Your task to perform on an android device: Go to internet settings Image 0: 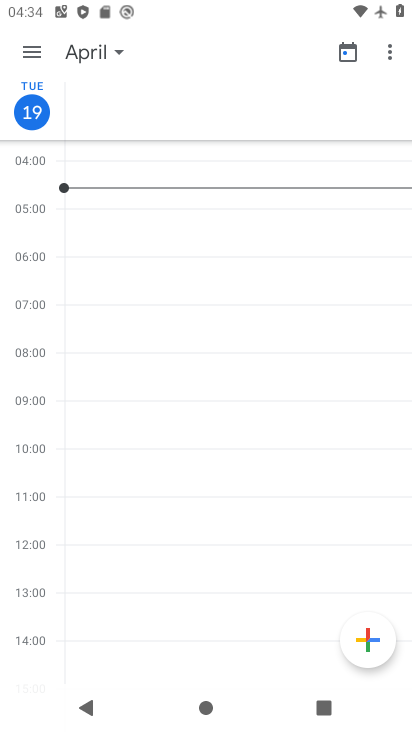
Step 0: press home button
Your task to perform on an android device: Go to internet settings Image 1: 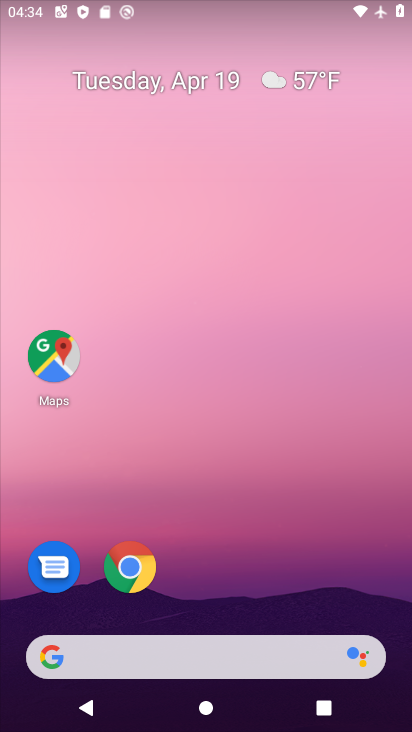
Step 1: drag from (351, 565) to (338, 173)
Your task to perform on an android device: Go to internet settings Image 2: 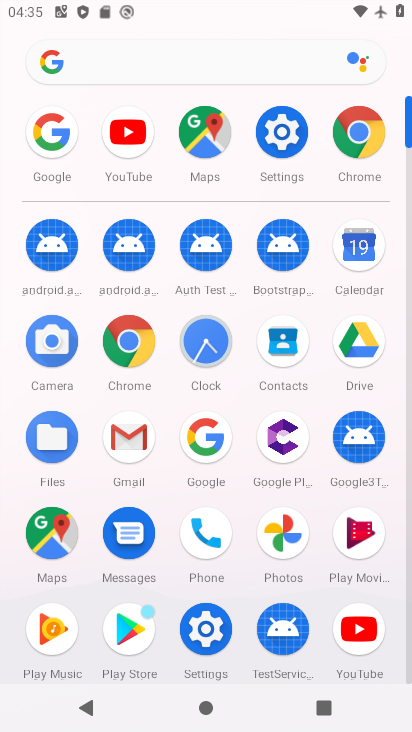
Step 2: click (208, 622)
Your task to perform on an android device: Go to internet settings Image 3: 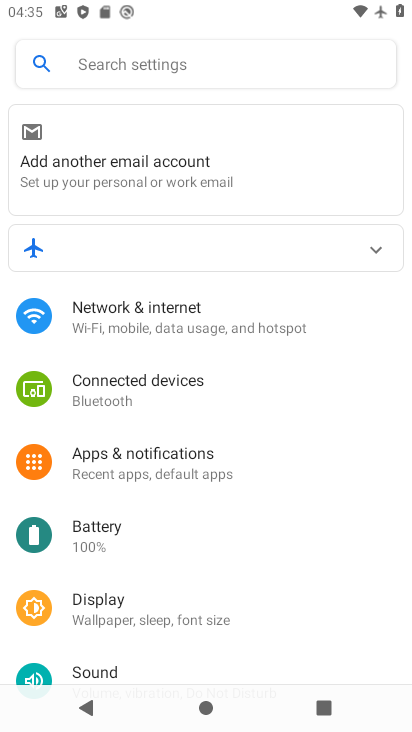
Step 3: drag from (318, 550) to (335, 452)
Your task to perform on an android device: Go to internet settings Image 4: 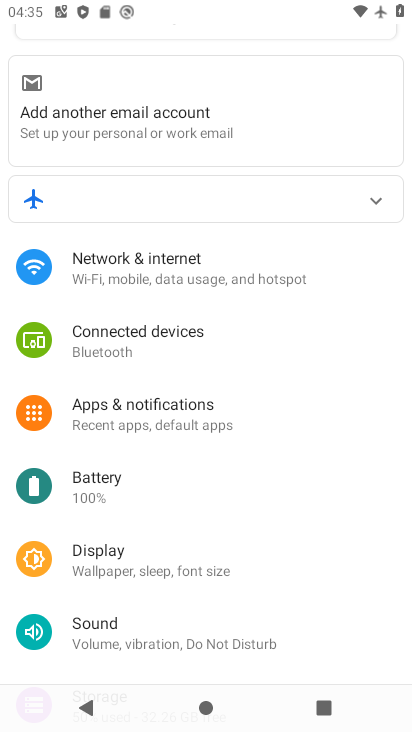
Step 4: drag from (333, 618) to (359, 461)
Your task to perform on an android device: Go to internet settings Image 5: 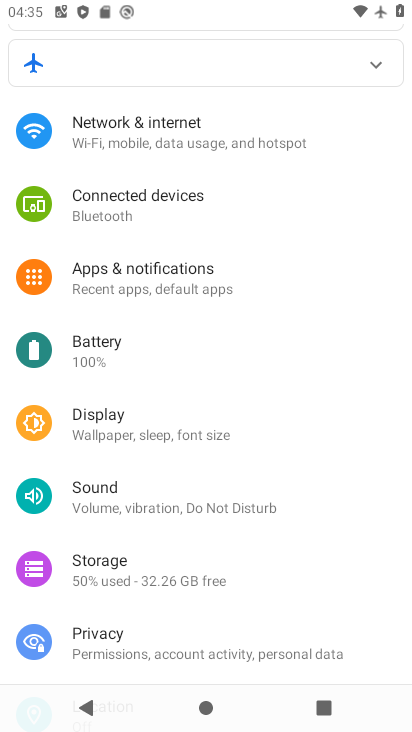
Step 5: drag from (323, 592) to (334, 470)
Your task to perform on an android device: Go to internet settings Image 6: 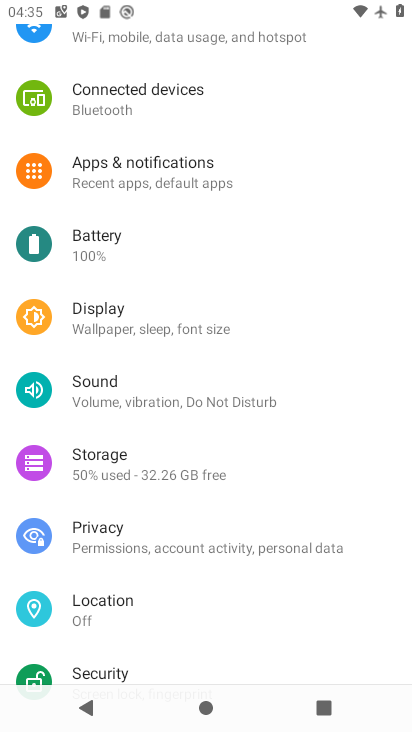
Step 6: drag from (360, 609) to (370, 492)
Your task to perform on an android device: Go to internet settings Image 7: 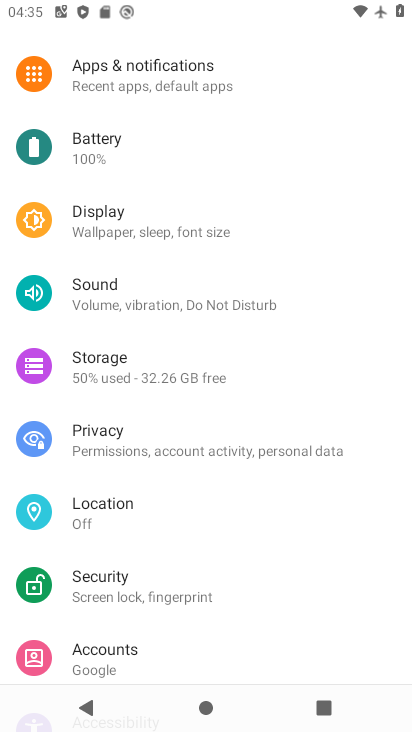
Step 7: drag from (344, 609) to (360, 463)
Your task to perform on an android device: Go to internet settings Image 8: 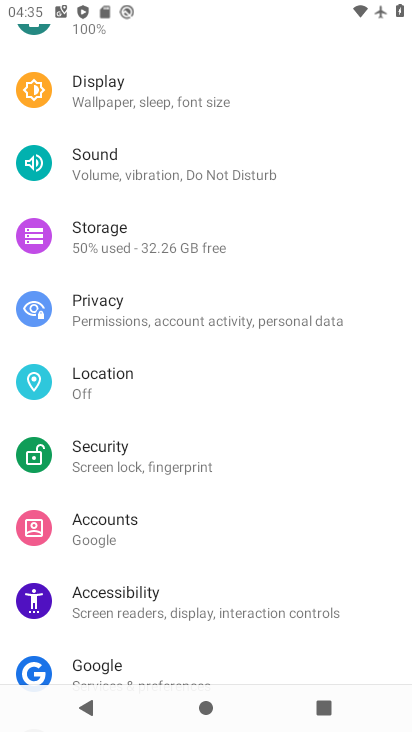
Step 8: drag from (367, 629) to (366, 462)
Your task to perform on an android device: Go to internet settings Image 9: 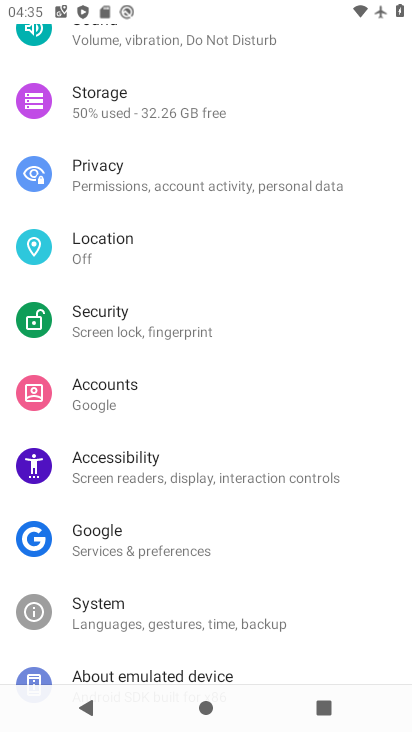
Step 9: drag from (354, 599) to (360, 484)
Your task to perform on an android device: Go to internet settings Image 10: 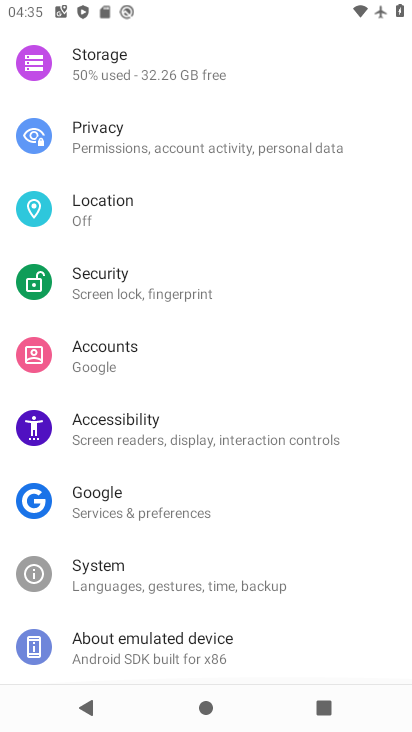
Step 10: drag from (371, 445) to (380, 558)
Your task to perform on an android device: Go to internet settings Image 11: 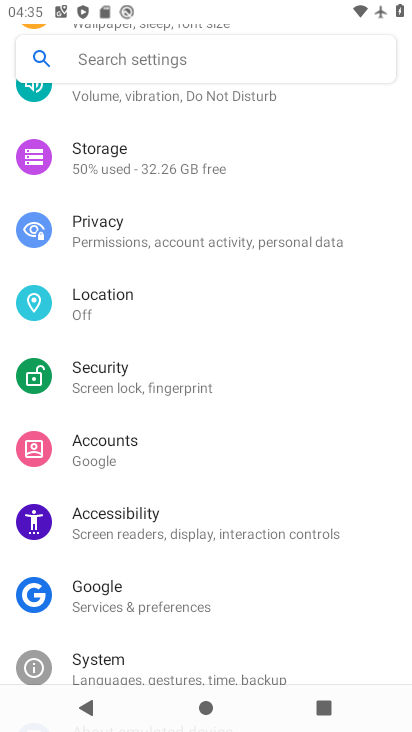
Step 11: drag from (374, 415) to (373, 551)
Your task to perform on an android device: Go to internet settings Image 12: 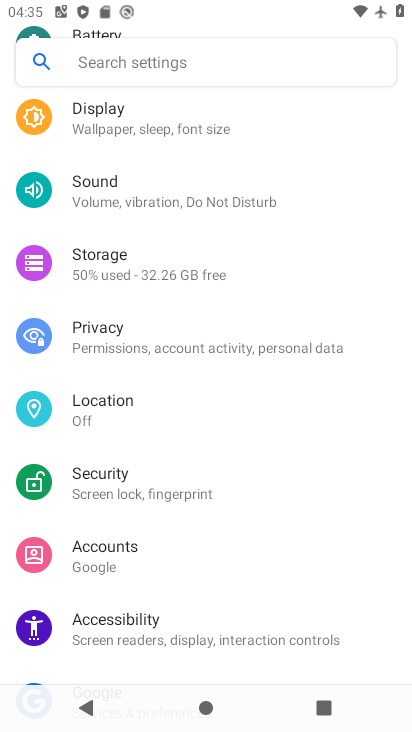
Step 12: drag from (354, 364) to (356, 533)
Your task to perform on an android device: Go to internet settings Image 13: 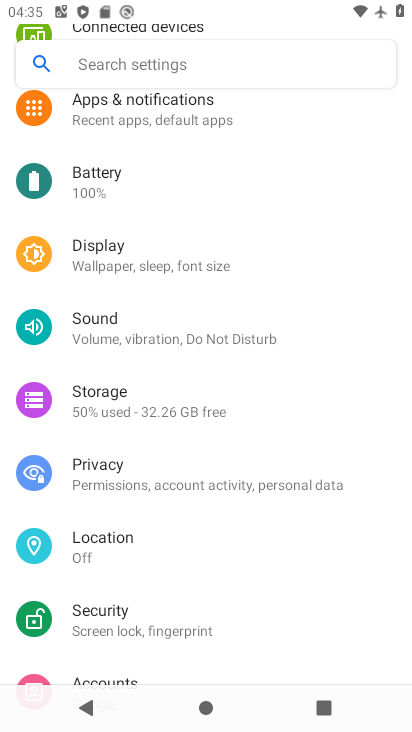
Step 13: drag from (367, 309) to (381, 518)
Your task to perform on an android device: Go to internet settings Image 14: 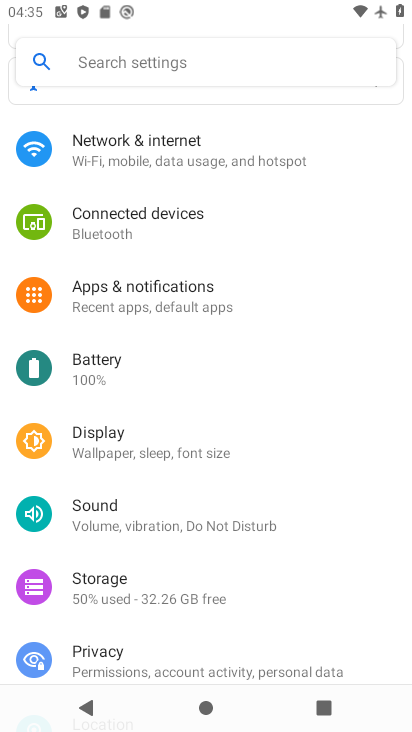
Step 14: drag from (361, 303) to (348, 456)
Your task to perform on an android device: Go to internet settings Image 15: 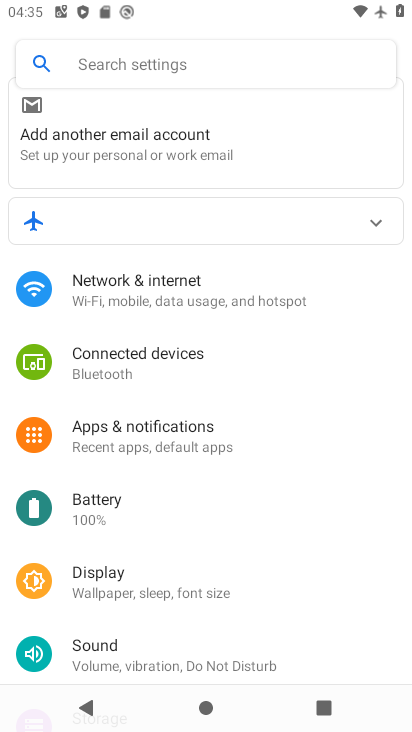
Step 15: click (165, 299)
Your task to perform on an android device: Go to internet settings Image 16: 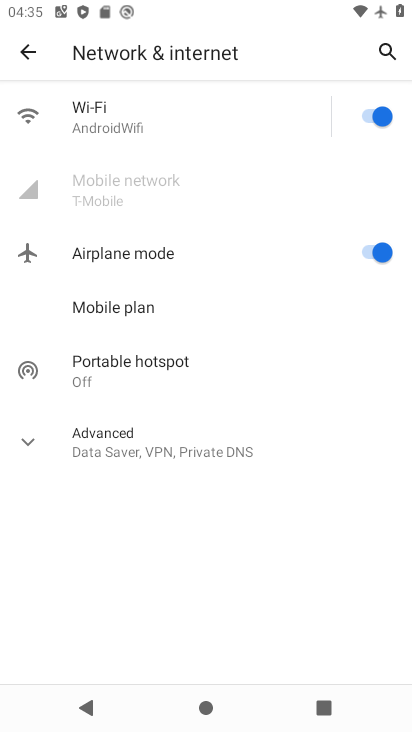
Step 16: task complete